Your task to perform on an android device: turn smart compose on in the gmail app Image 0: 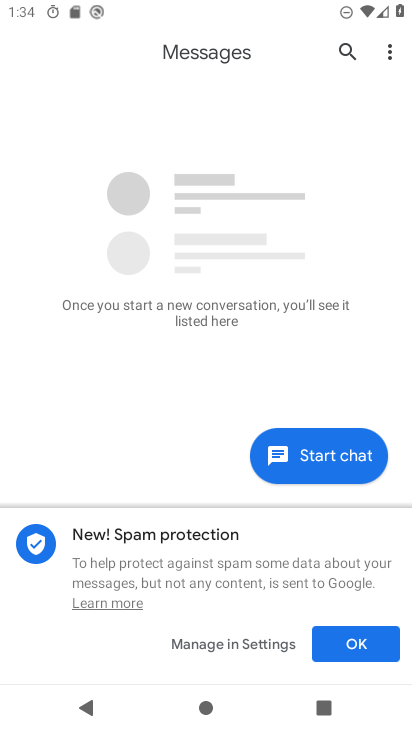
Step 0: press home button
Your task to perform on an android device: turn smart compose on in the gmail app Image 1: 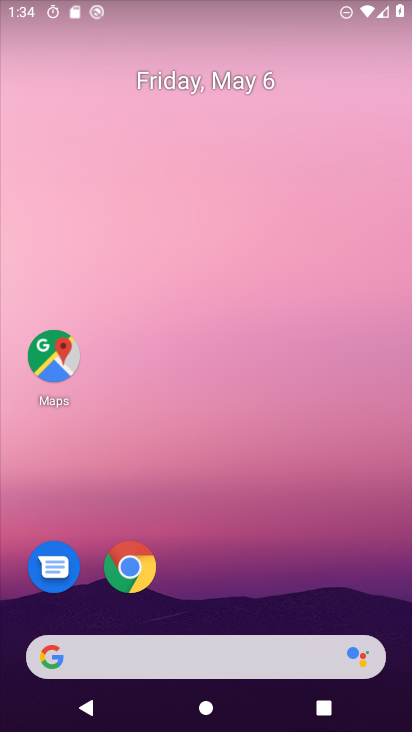
Step 1: drag from (339, 584) to (341, 3)
Your task to perform on an android device: turn smart compose on in the gmail app Image 2: 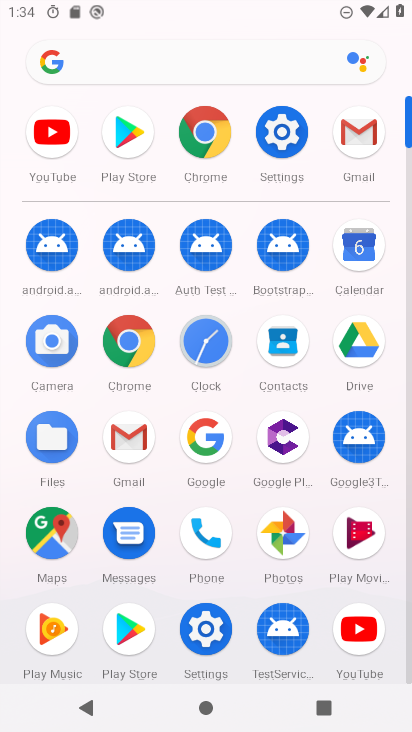
Step 2: click (360, 131)
Your task to perform on an android device: turn smart compose on in the gmail app Image 3: 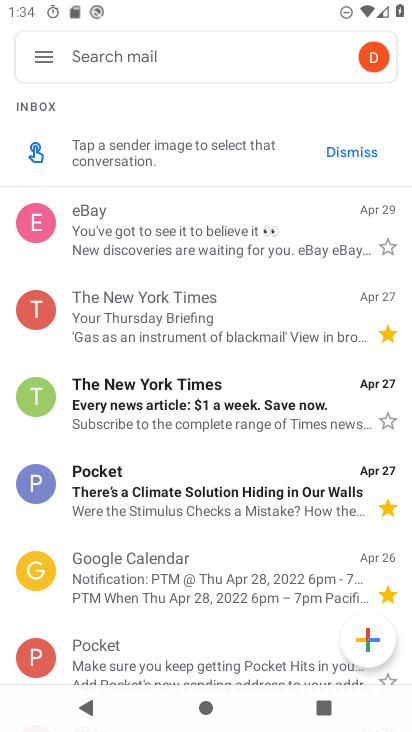
Step 3: click (41, 59)
Your task to perform on an android device: turn smart compose on in the gmail app Image 4: 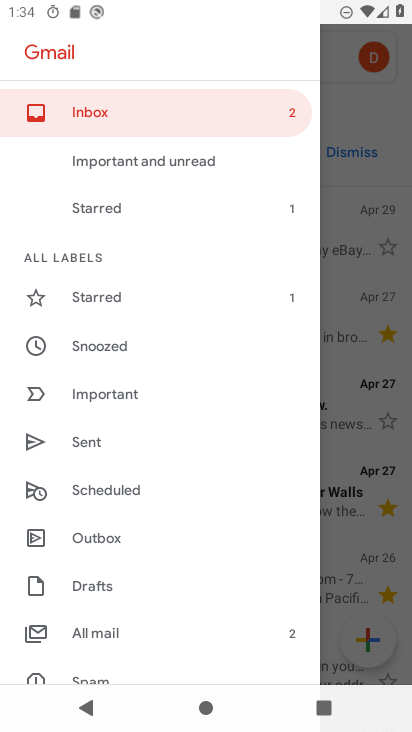
Step 4: drag from (174, 587) to (162, 156)
Your task to perform on an android device: turn smart compose on in the gmail app Image 5: 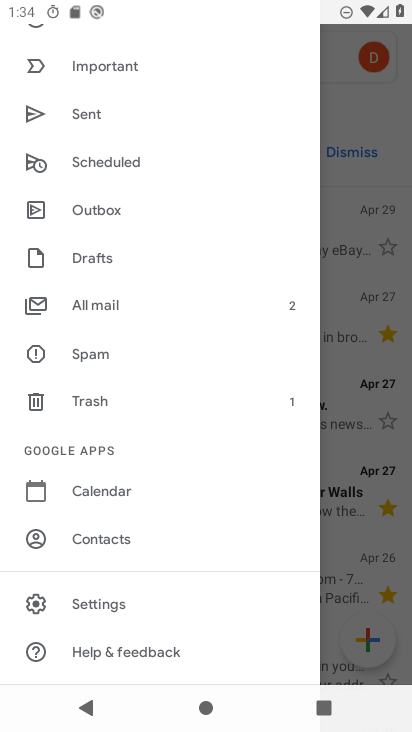
Step 5: click (87, 605)
Your task to perform on an android device: turn smart compose on in the gmail app Image 6: 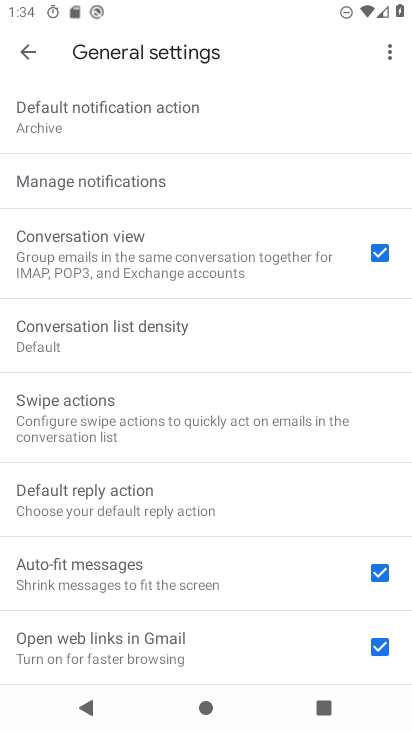
Step 6: click (24, 50)
Your task to perform on an android device: turn smart compose on in the gmail app Image 7: 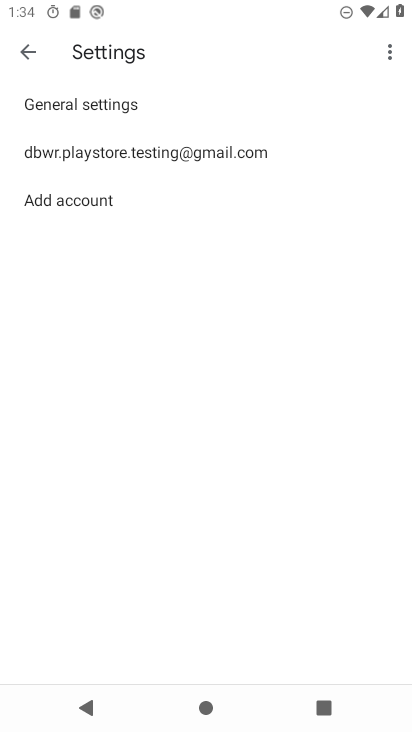
Step 7: click (53, 149)
Your task to perform on an android device: turn smart compose on in the gmail app Image 8: 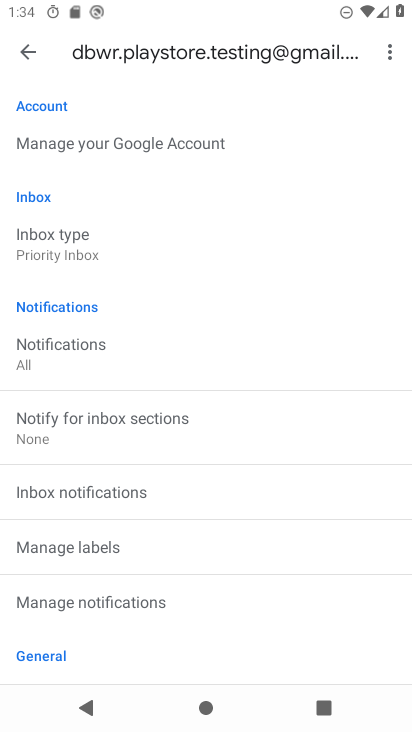
Step 8: task complete